Your task to perform on an android device: Open Google Maps Image 0: 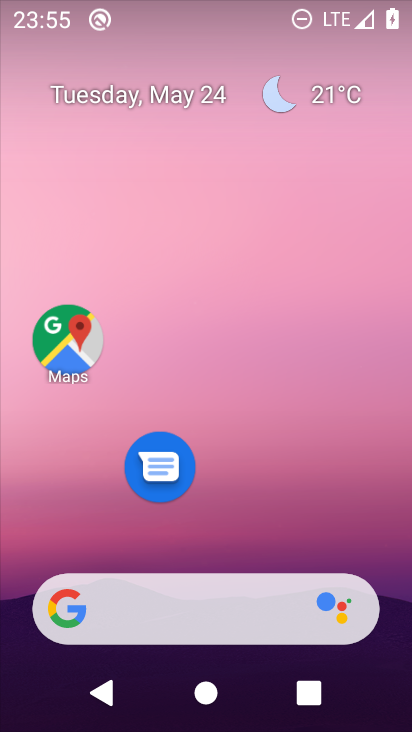
Step 0: click (281, 112)
Your task to perform on an android device: Open Google Maps Image 1: 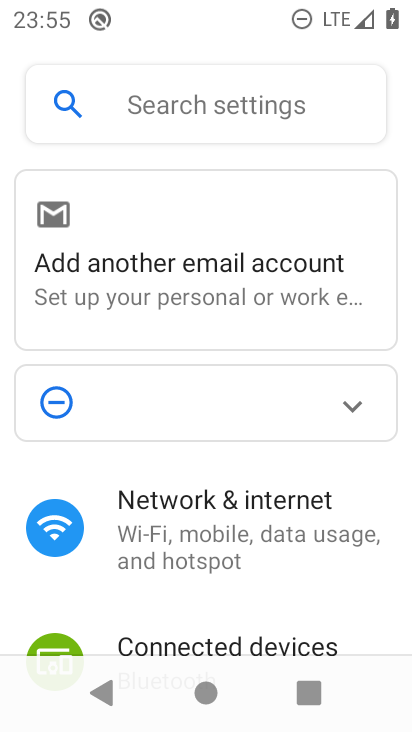
Step 1: press home button
Your task to perform on an android device: Open Google Maps Image 2: 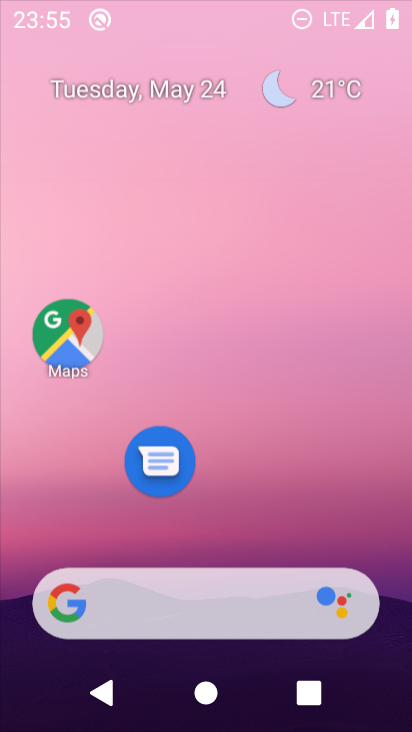
Step 2: drag from (201, 613) to (197, 208)
Your task to perform on an android device: Open Google Maps Image 3: 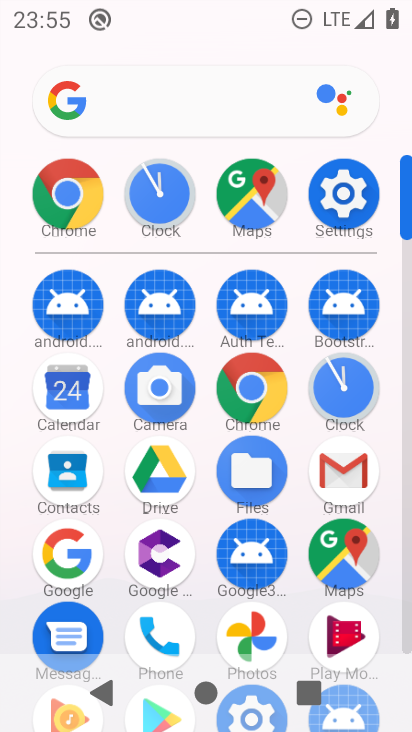
Step 3: drag from (196, 608) to (208, 274)
Your task to perform on an android device: Open Google Maps Image 4: 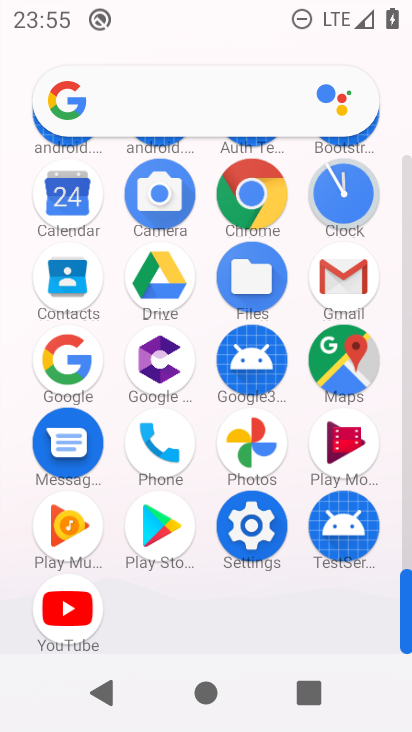
Step 4: click (342, 373)
Your task to perform on an android device: Open Google Maps Image 5: 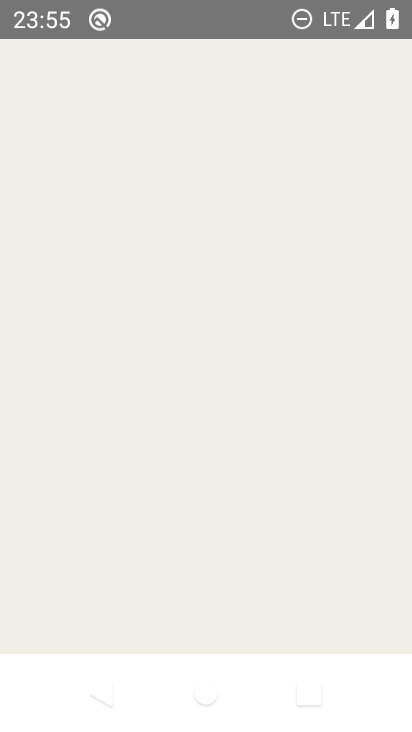
Step 5: drag from (216, 563) to (232, 312)
Your task to perform on an android device: Open Google Maps Image 6: 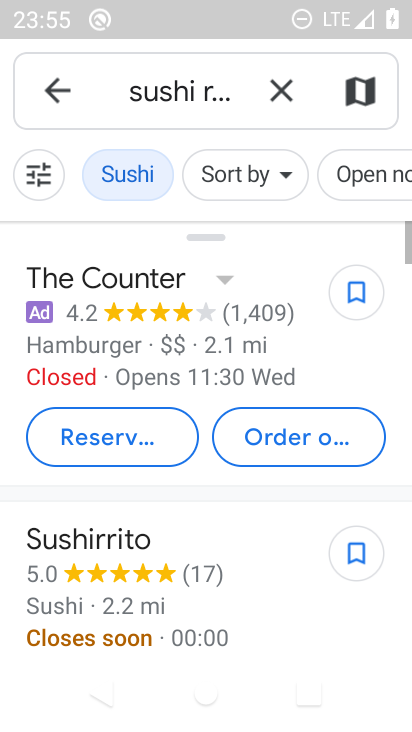
Step 6: click (195, 281)
Your task to perform on an android device: Open Google Maps Image 7: 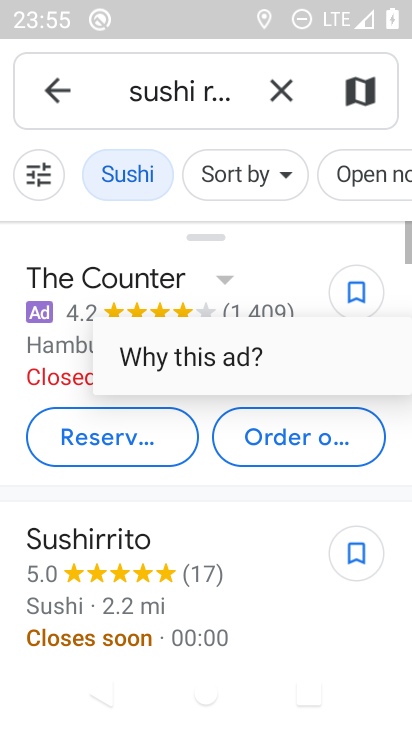
Step 7: task complete